Your task to perform on an android device: turn notification dots off Image 0: 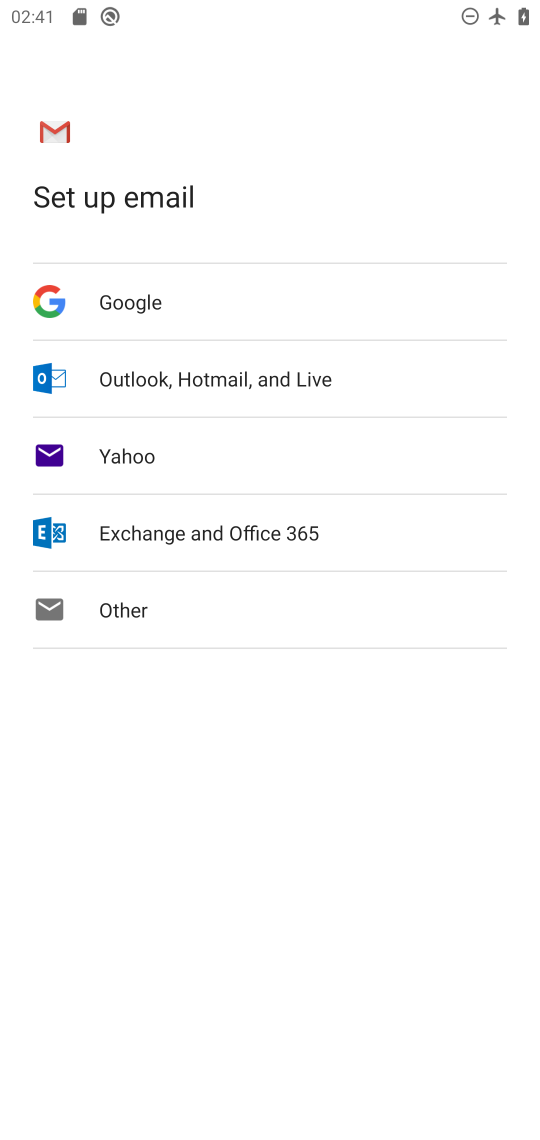
Step 0: press home button
Your task to perform on an android device: turn notification dots off Image 1: 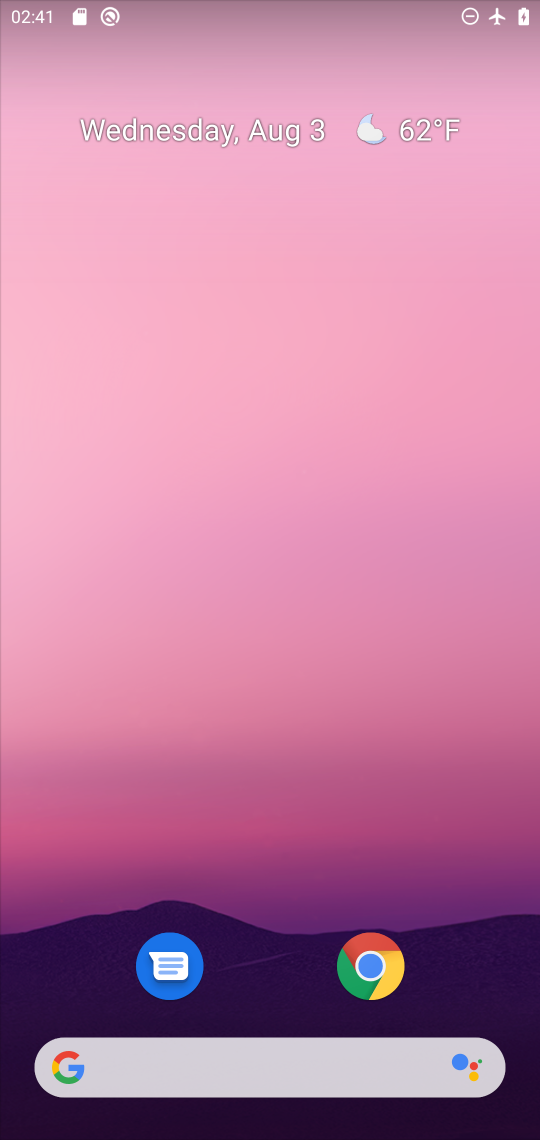
Step 1: drag from (267, 995) to (282, 415)
Your task to perform on an android device: turn notification dots off Image 2: 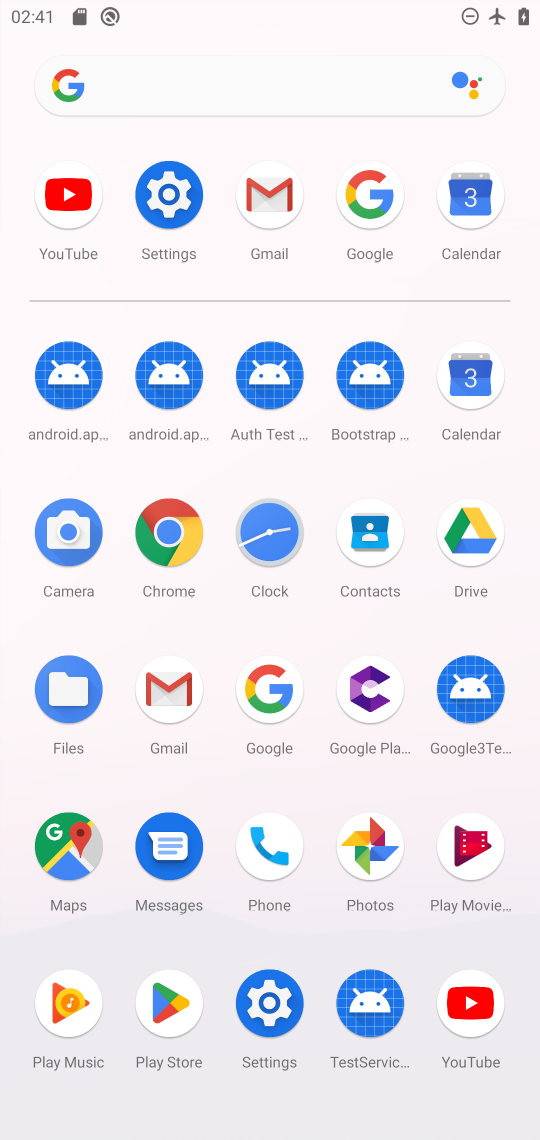
Step 2: click (141, 201)
Your task to perform on an android device: turn notification dots off Image 3: 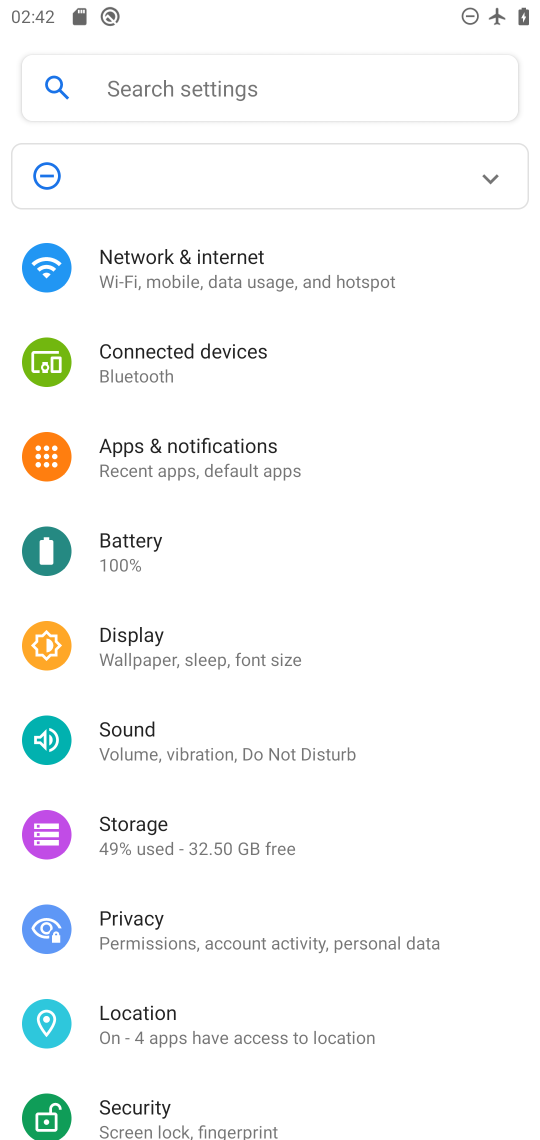
Step 3: click (244, 482)
Your task to perform on an android device: turn notification dots off Image 4: 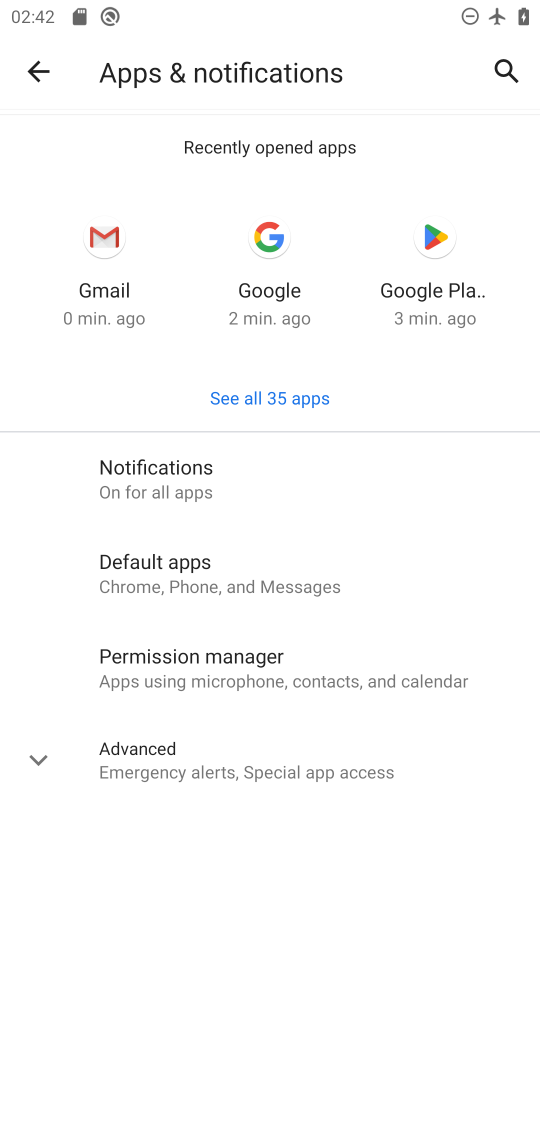
Step 4: click (260, 468)
Your task to perform on an android device: turn notification dots off Image 5: 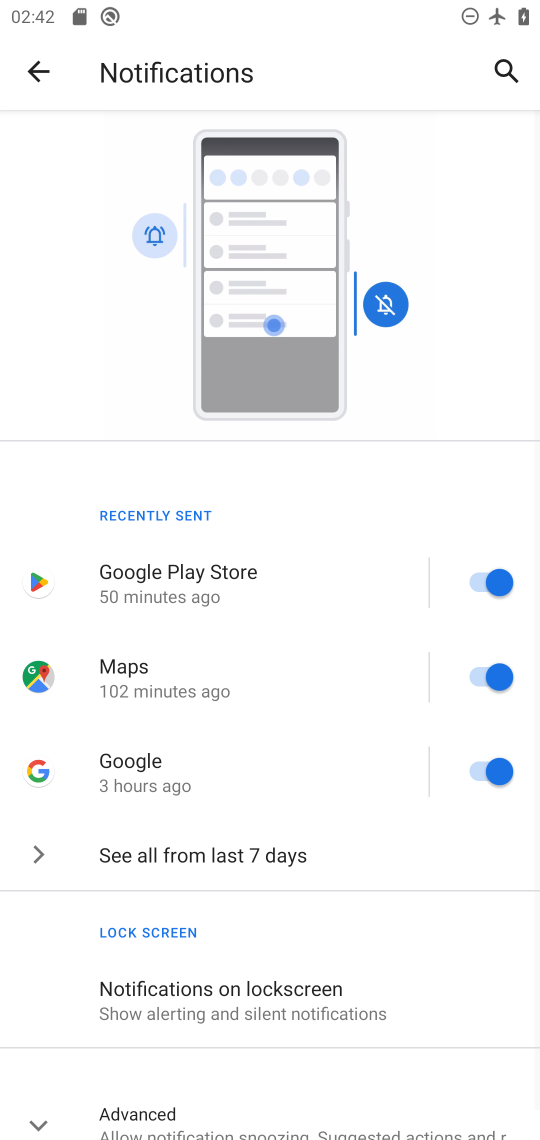
Step 5: drag from (287, 974) to (317, 373)
Your task to perform on an android device: turn notification dots off Image 6: 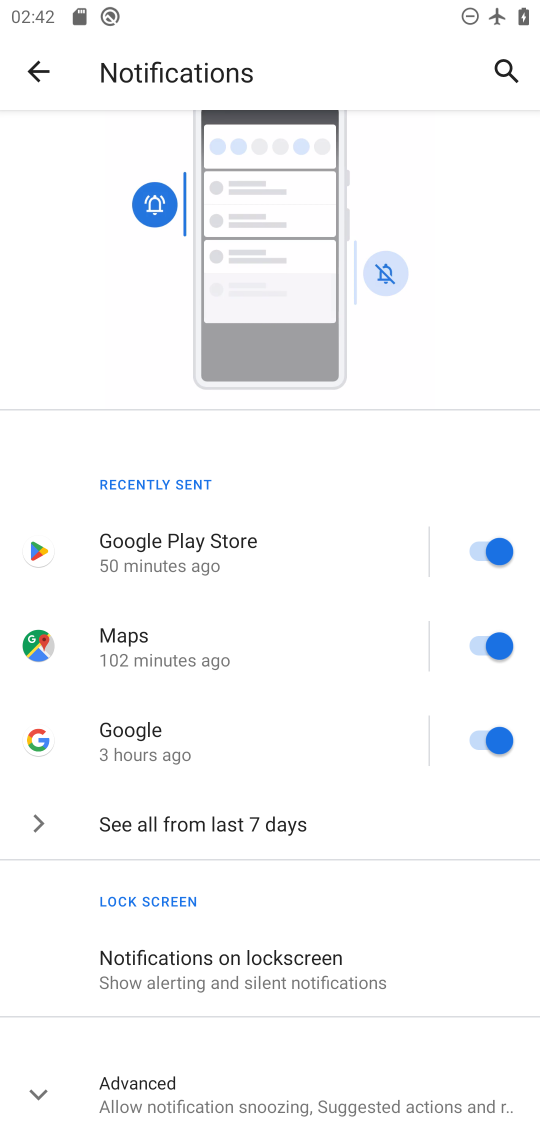
Step 6: click (267, 1099)
Your task to perform on an android device: turn notification dots off Image 7: 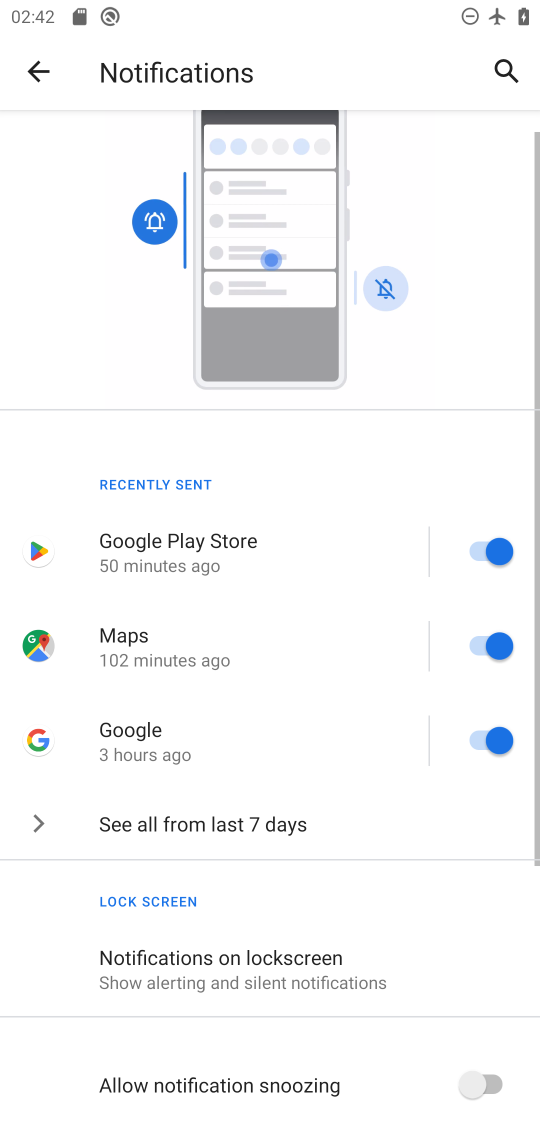
Step 7: task complete